Your task to perform on an android device: delete a single message in the gmail app Image 0: 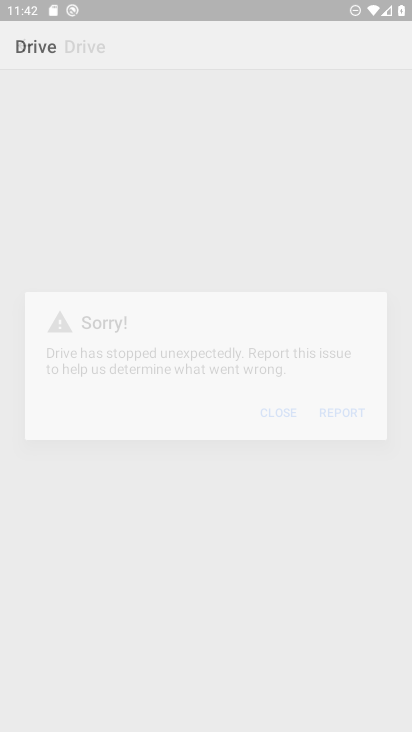
Step 0: drag from (220, 621) to (242, 123)
Your task to perform on an android device: delete a single message in the gmail app Image 1: 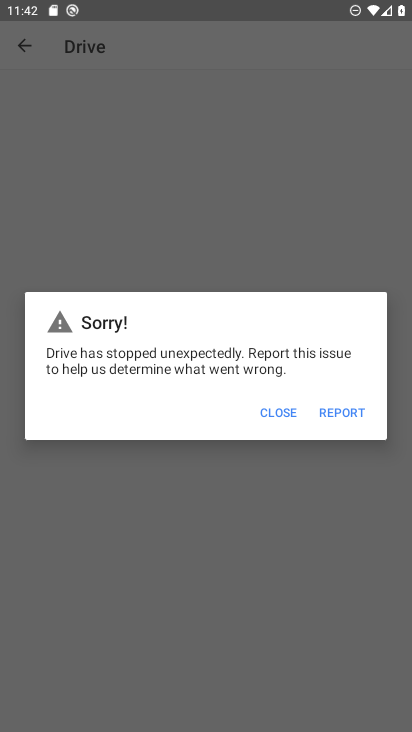
Step 1: press home button
Your task to perform on an android device: delete a single message in the gmail app Image 2: 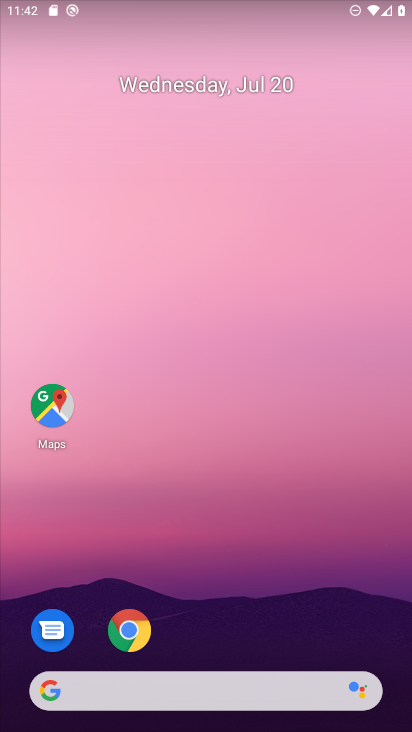
Step 2: drag from (241, 619) to (196, 127)
Your task to perform on an android device: delete a single message in the gmail app Image 3: 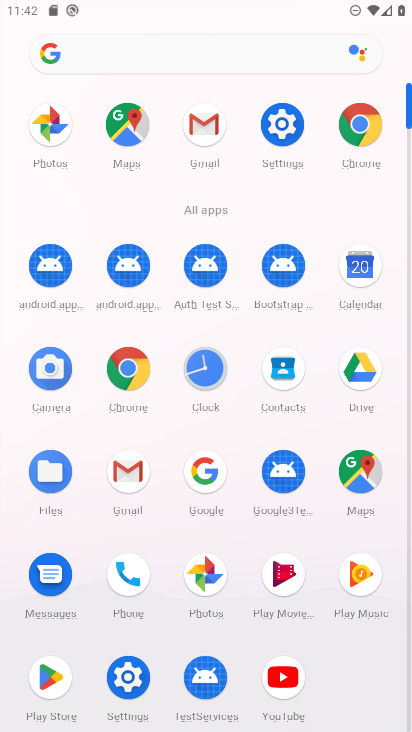
Step 3: click (117, 476)
Your task to perform on an android device: delete a single message in the gmail app Image 4: 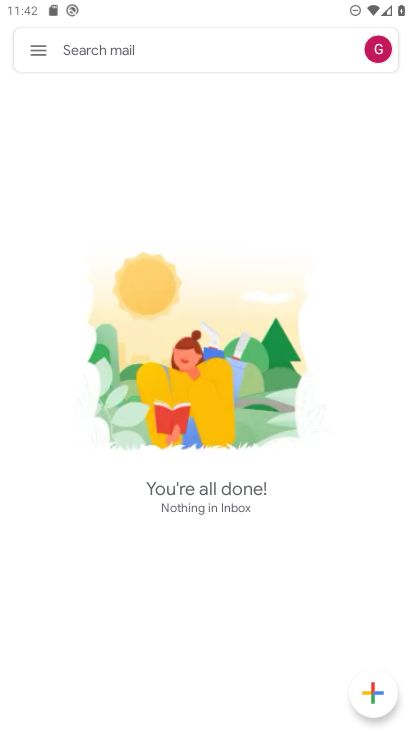
Step 4: task complete